Your task to perform on an android device: see sites visited before in the chrome app Image 0: 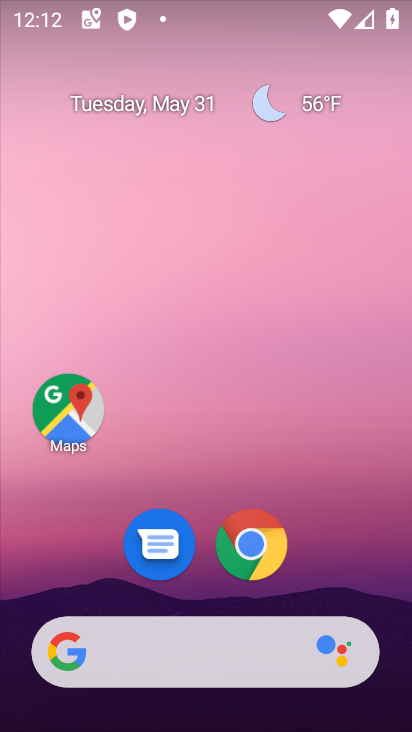
Step 0: click (241, 554)
Your task to perform on an android device: see sites visited before in the chrome app Image 1: 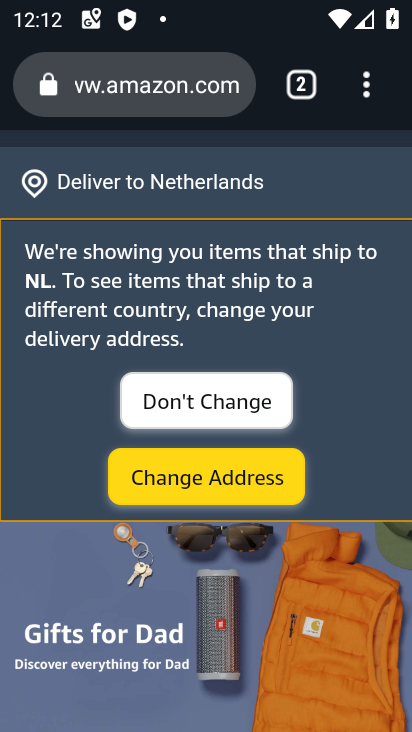
Step 1: click (363, 82)
Your task to perform on an android device: see sites visited before in the chrome app Image 2: 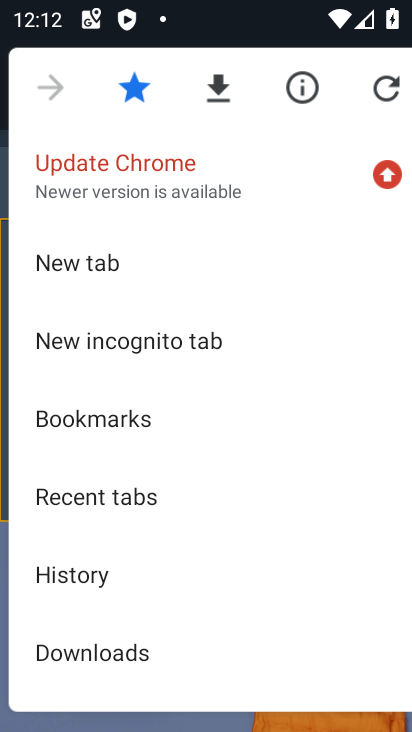
Step 2: click (59, 573)
Your task to perform on an android device: see sites visited before in the chrome app Image 3: 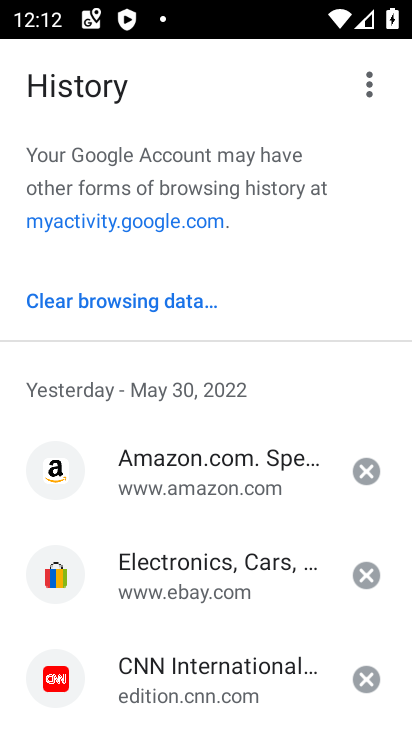
Step 3: drag from (283, 537) to (281, 258)
Your task to perform on an android device: see sites visited before in the chrome app Image 4: 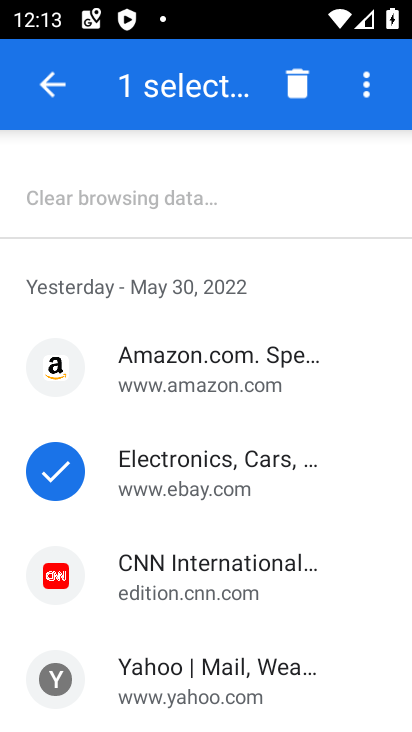
Step 4: click (54, 462)
Your task to perform on an android device: see sites visited before in the chrome app Image 5: 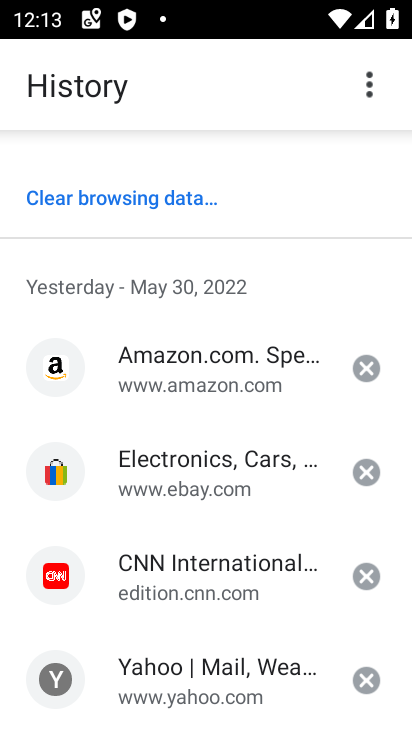
Step 5: task complete